Your task to perform on an android device: Show me the alarms in the clock app Image 0: 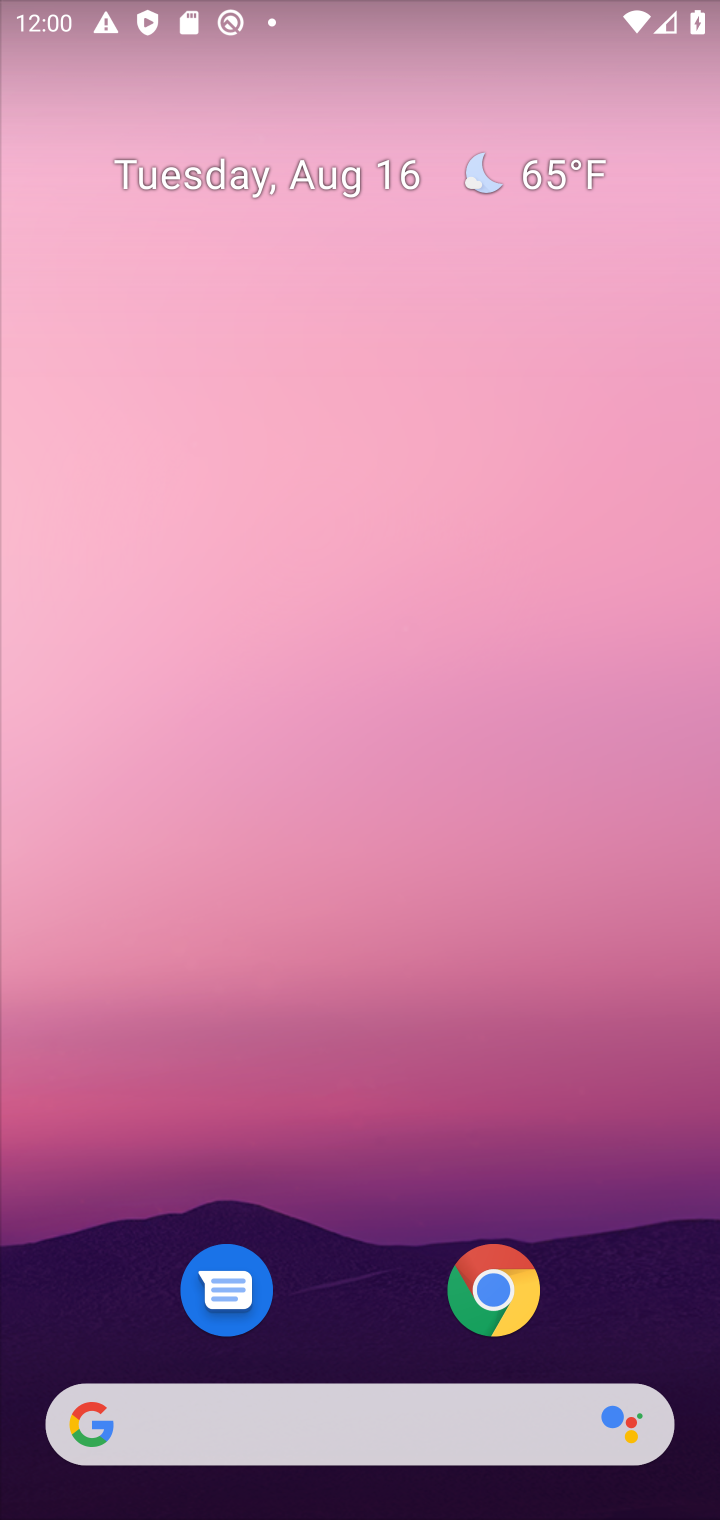
Step 0: drag from (122, 893) to (397, 447)
Your task to perform on an android device: Show me the alarms in the clock app Image 1: 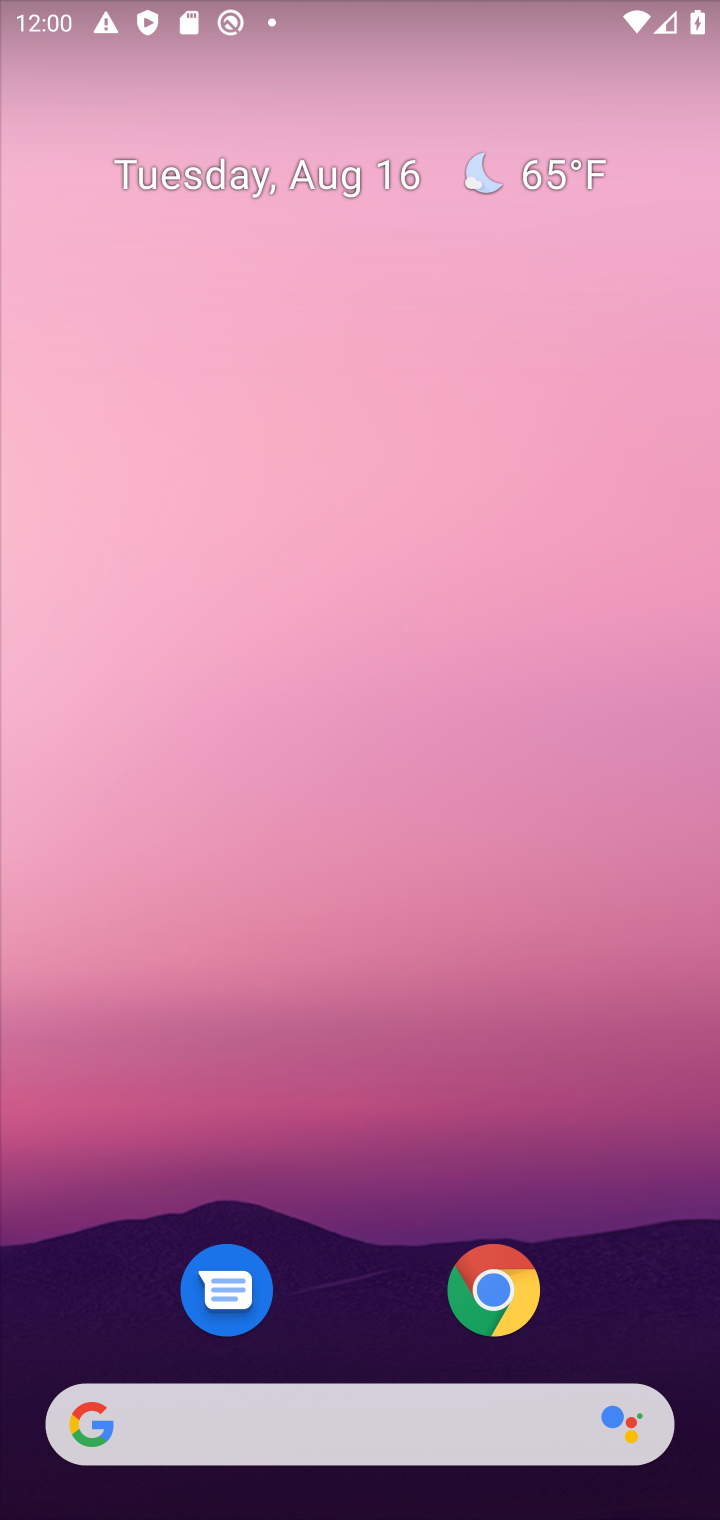
Step 1: drag from (105, 1272) to (566, 258)
Your task to perform on an android device: Show me the alarms in the clock app Image 2: 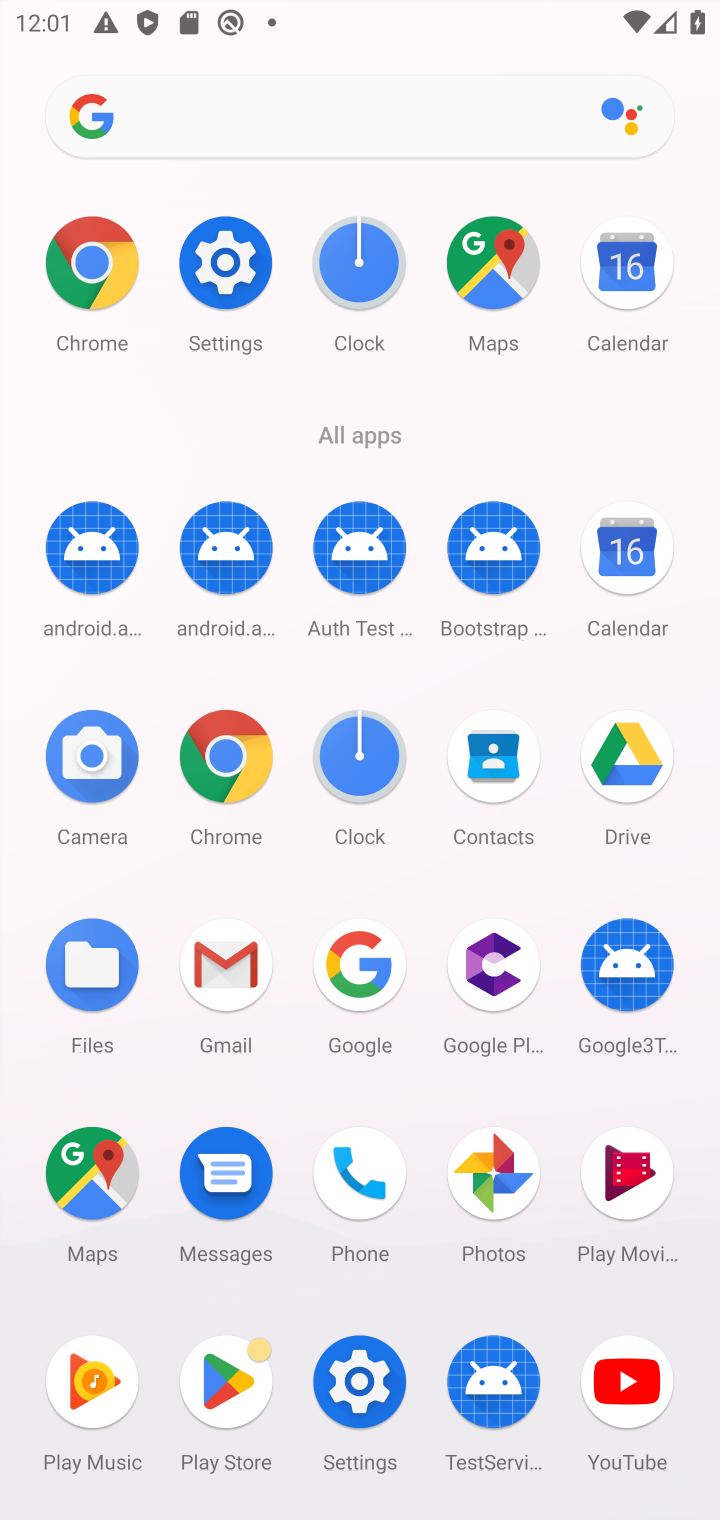
Step 2: click (341, 269)
Your task to perform on an android device: Show me the alarms in the clock app Image 3: 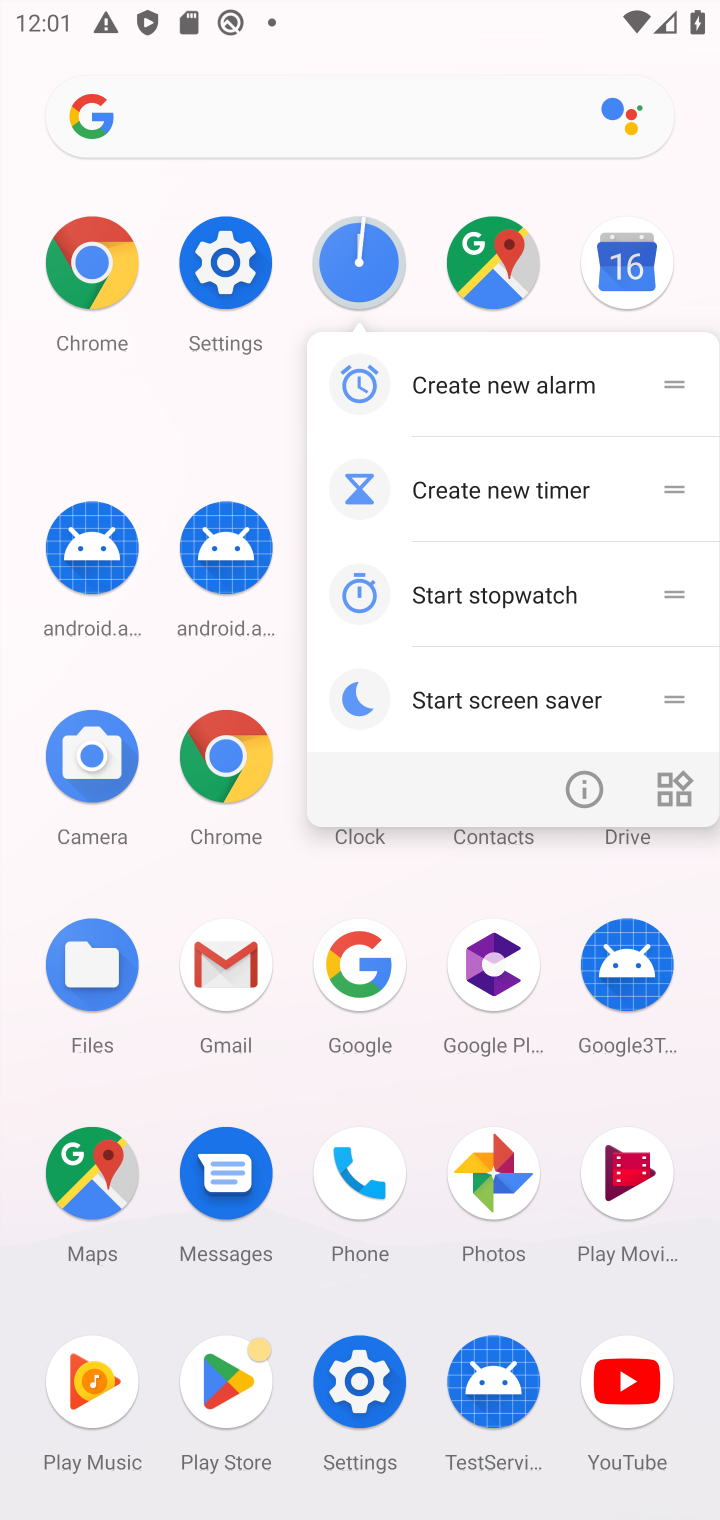
Step 3: click (365, 286)
Your task to perform on an android device: Show me the alarms in the clock app Image 4: 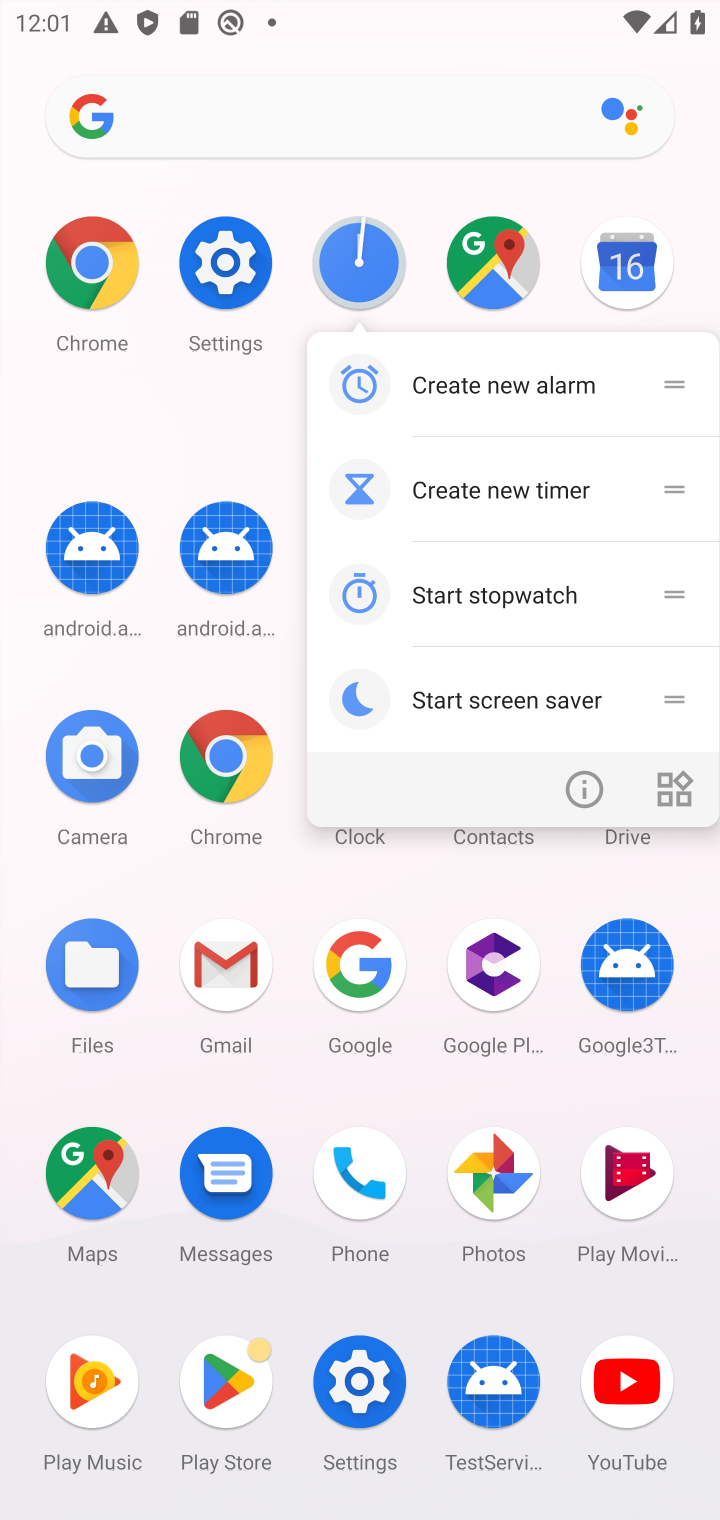
Step 4: click (344, 262)
Your task to perform on an android device: Show me the alarms in the clock app Image 5: 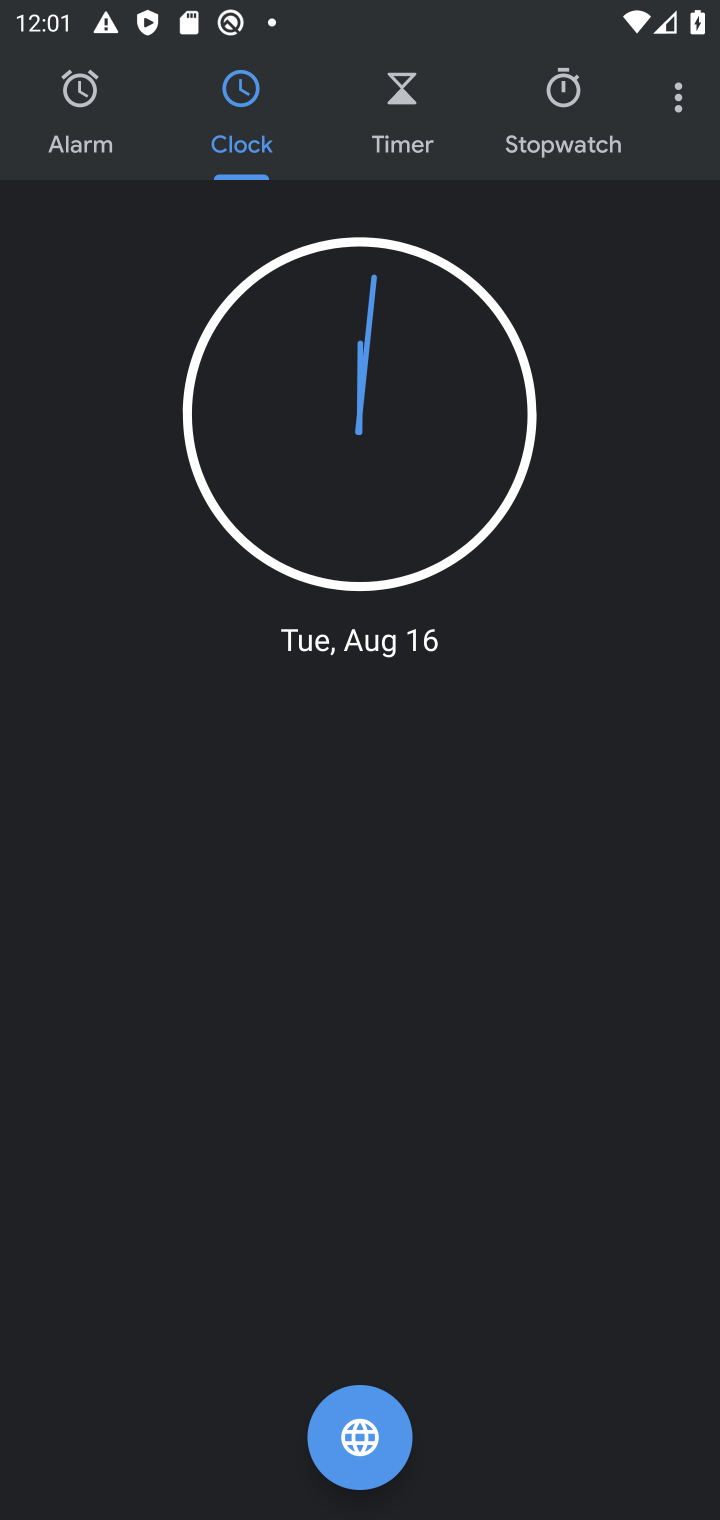
Step 5: click (81, 98)
Your task to perform on an android device: Show me the alarms in the clock app Image 6: 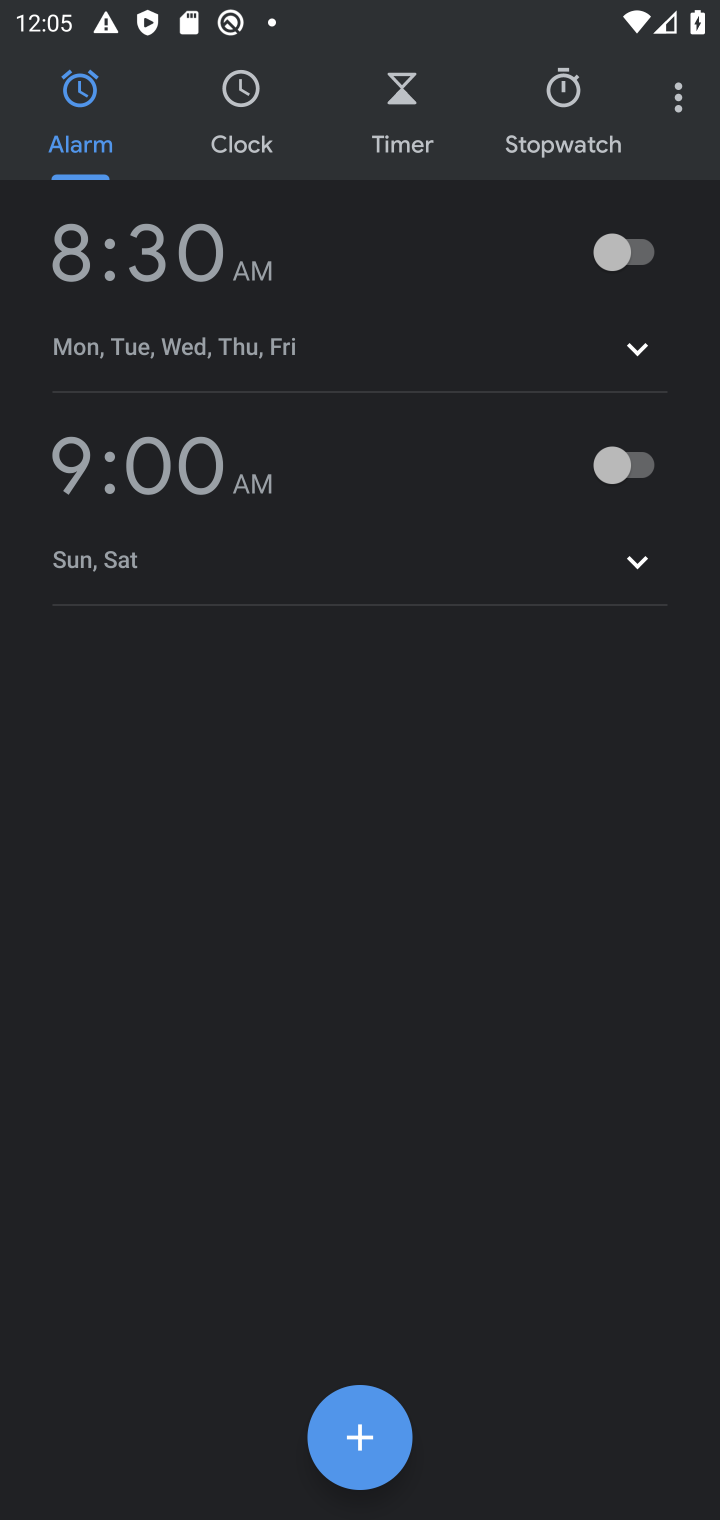
Step 6: task complete